Your task to perform on an android device: see tabs open on other devices in the chrome app Image 0: 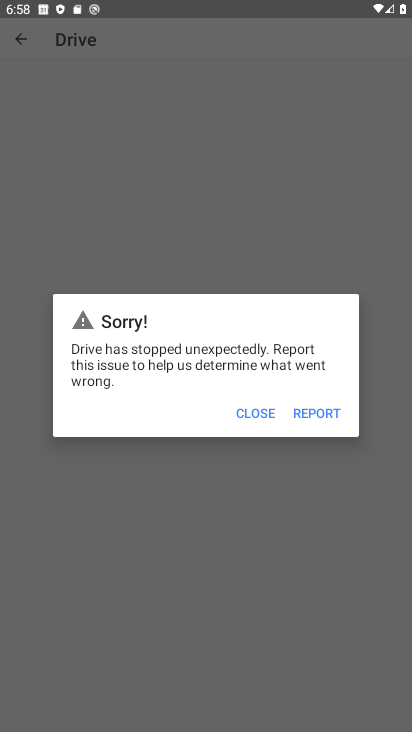
Step 0: press home button
Your task to perform on an android device: see tabs open on other devices in the chrome app Image 1: 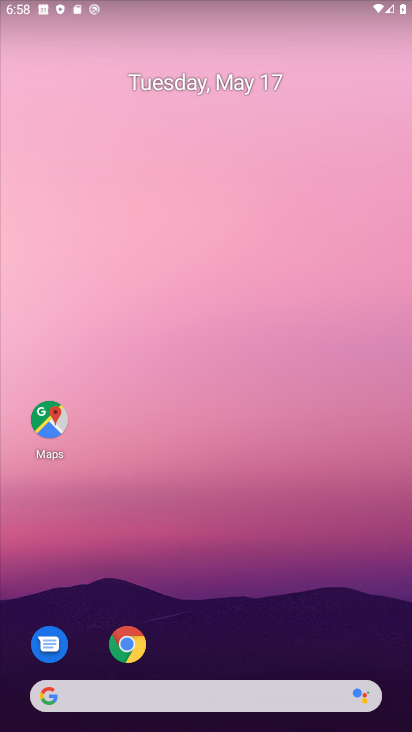
Step 1: drag from (313, 624) to (268, 114)
Your task to perform on an android device: see tabs open on other devices in the chrome app Image 2: 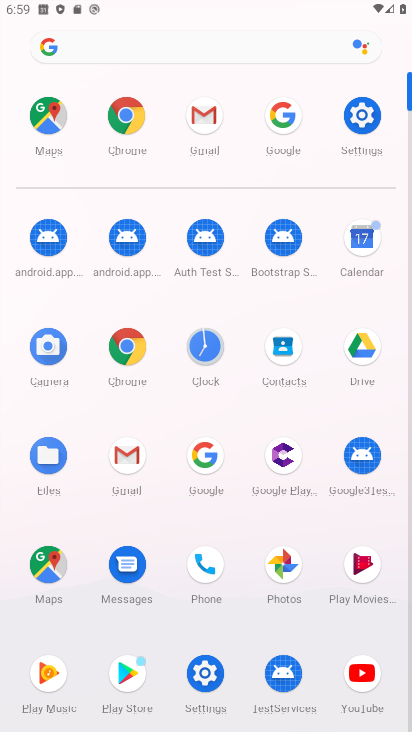
Step 2: click (135, 117)
Your task to perform on an android device: see tabs open on other devices in the chrome app Image 3: 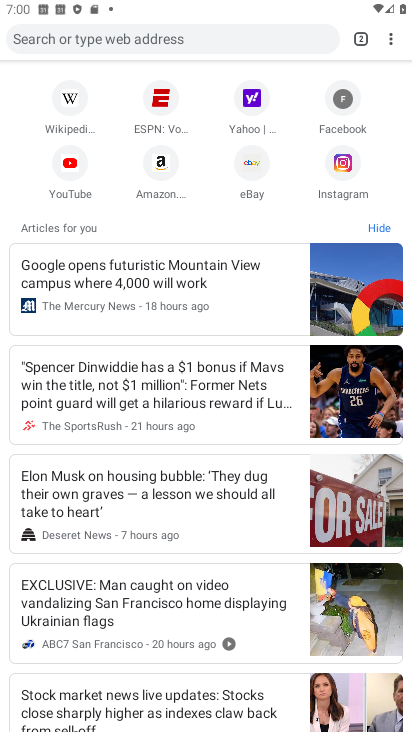
Step 3: task complete